Your task to perform on an android device: move a message to another label in the gmail app Image 0: 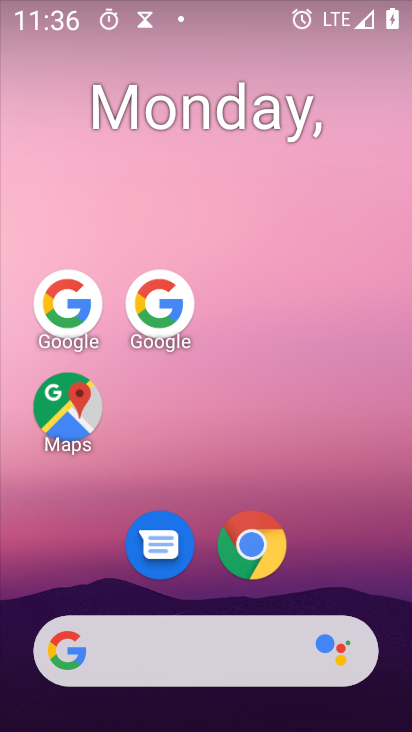
Step 0: press home button
Your task to perform on an android device: move a message to another label in the gmail app Image 1: 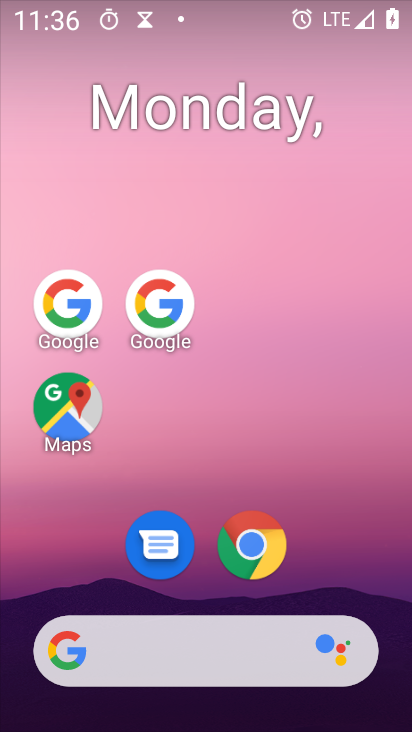
Step 1: drag from (246, 665) to (282, 227)
Your task to perform on an android device: move a message to another label in the gmail app Image 2: 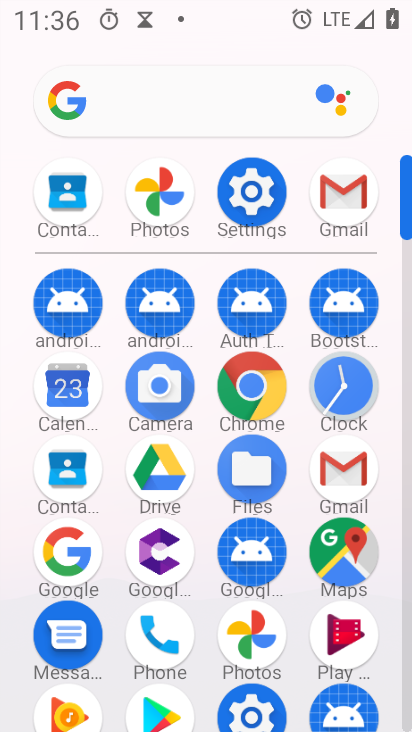
Step 2: click (337, 195)
Your task to perform on an android device: move a message to another label in the gmail app Image 3: 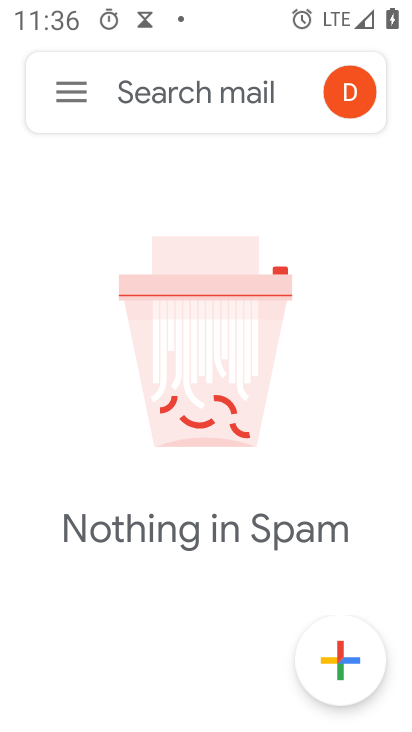
Step 3: click (86, 95)
Your task to perform on an android device: move a message to another label in the gmail app Image 4: 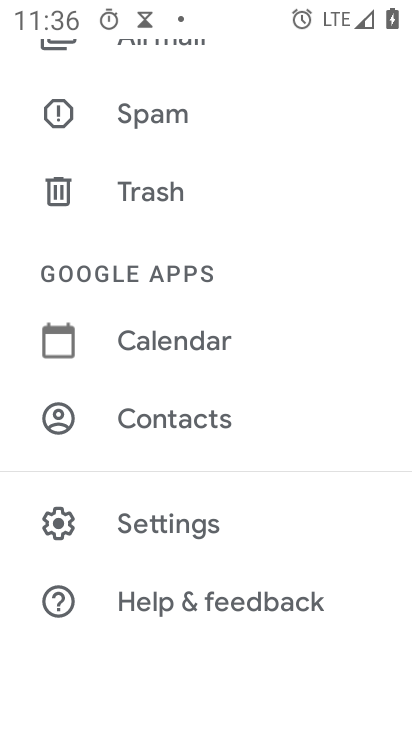
Step 4: drag from (223, 153) to (212, 438)
Your task to perform on an android device: move a message to another label in the gmail app Image 5: 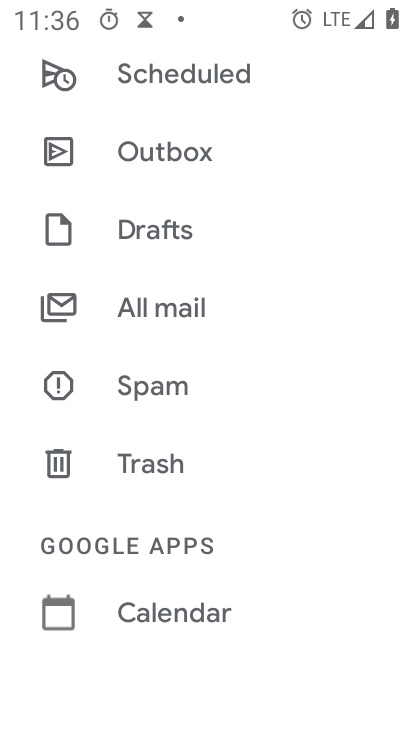
Step 5: click (148, 307)
Your task to perform on an android device: move a message to another label in the gmail app Image 6: 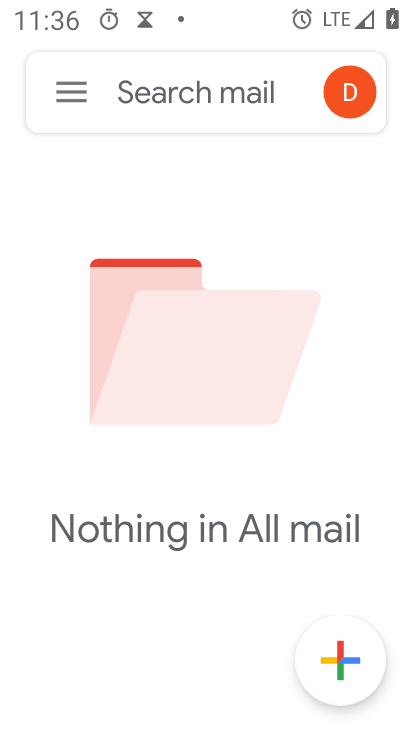
Step 6: task complete